Your task to perform on an android device: toggle priority inbox in the gmail app Image 0: 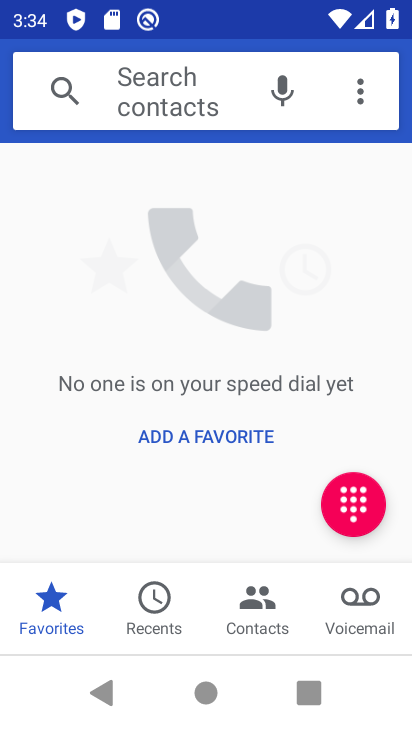
Step 0: press home button
Your task to perform on an android device: toggle priority inbox in the gmail app Image 1: 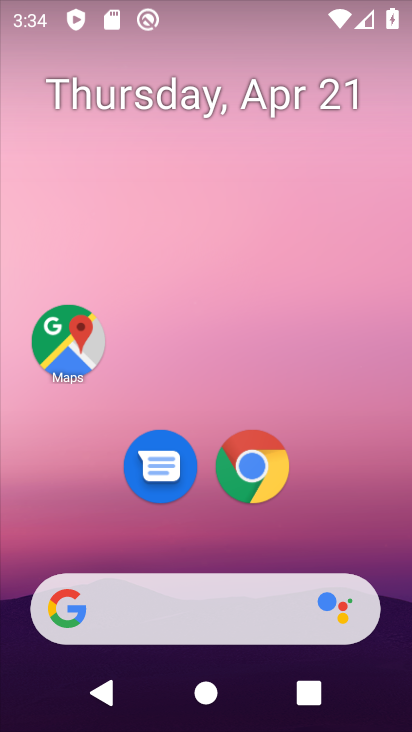
Step 1: drag from (202, 562) to (204, 207)
Your task to perform on an android device: toggle priority inbox in the gmail app Image 2: 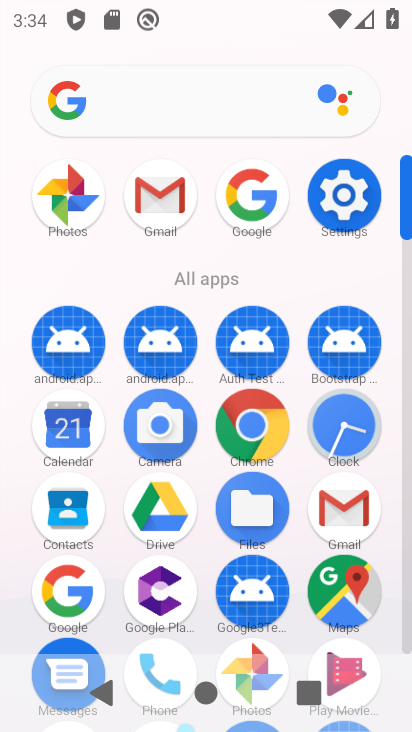
Step 2: click (326, 510)
Your task to perform on an android device: toggle priority inbox in the gmail app Image 3: 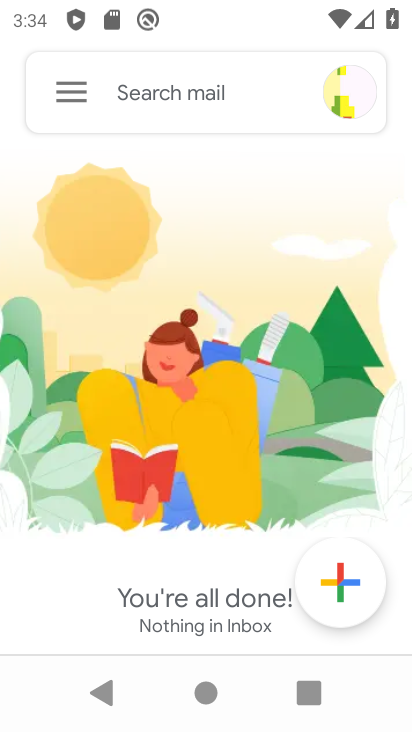
Step 3: click (72, 91)
Your task to perform on an android device: toggle priority inbox in the gmail app Image 4: 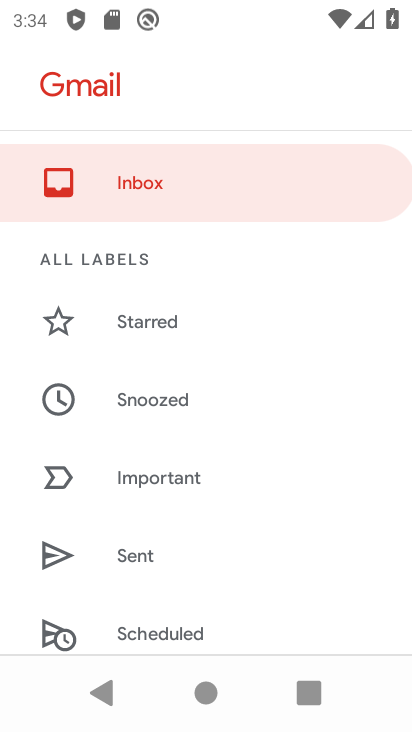
Step 4: drag from (206, 578) to (241, 276)
Your task to perform on an android device: toggle priority inbox in the gmail app Image 5: 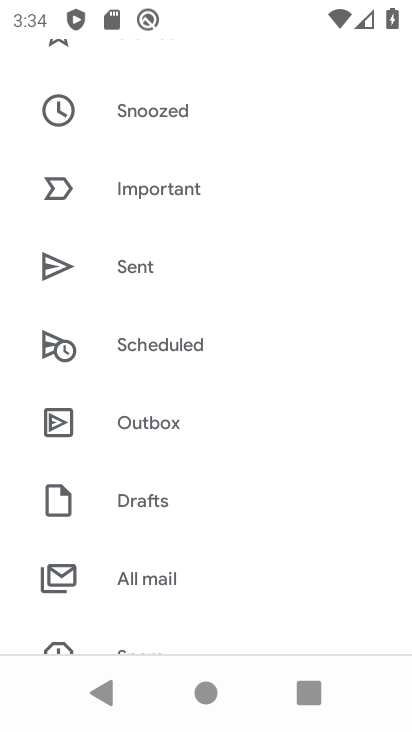
Step 5: drag from (168, 564) to (203, 367)
Your task to perform on an android device: toggle priority inbox in the gmail app Image 6: 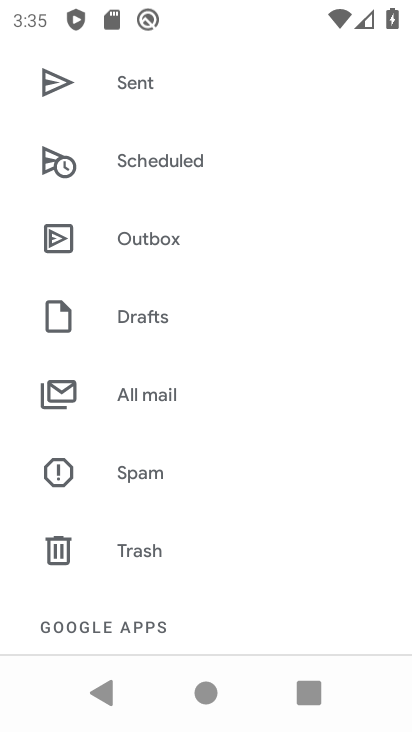
Step 6: drag from (189, 566) to (230, 332)
Your task to perform on an android device: toggle priority inbox in the gmail app Image 7: 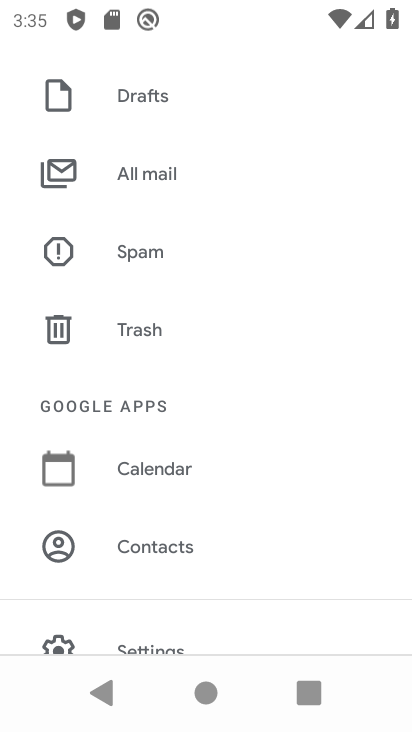
Step 7: click (181, 627)
Your task to perform on an android device: toggle priority inbox in the gmail app Image 8: 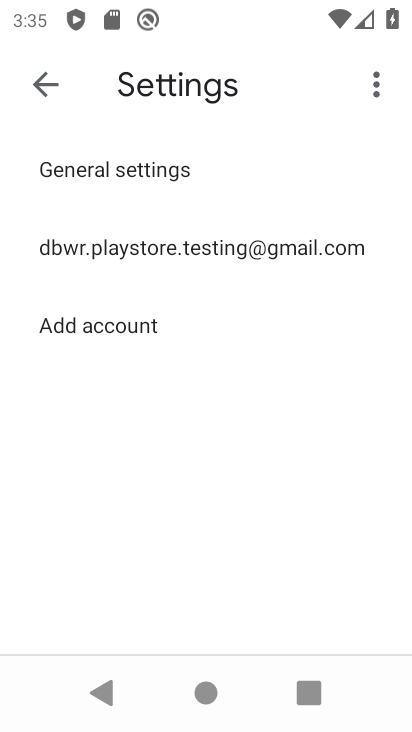
Step 8: click (211, 235)
Your task to perform on an android device: toggle priority inbox in the gmail app Image 9: 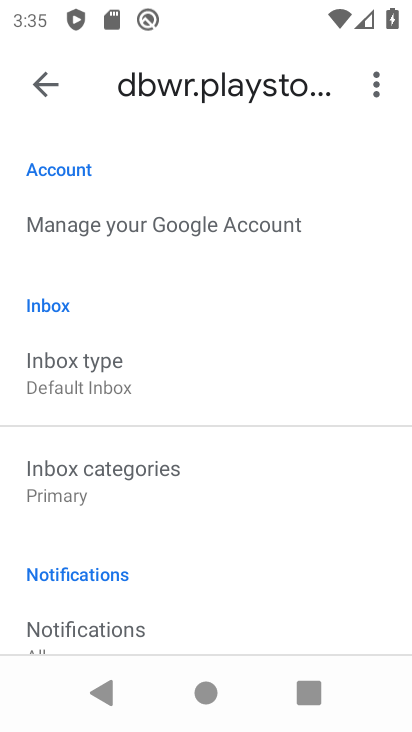
Step 9: drag from (192, 568) to (213, 316)
Your task to perform on an android device: toggle priority inbox in the gmail app Image 10: 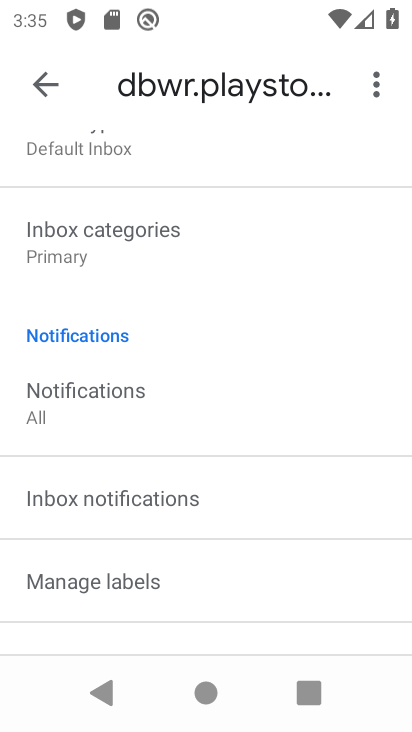
Step 10: click (141, 163)
Your task to perform on an android device: toggle priority inbox in the gmail app Image 11: 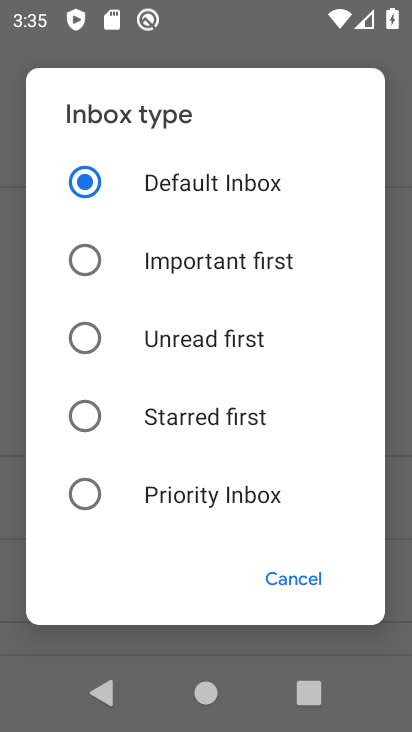
Step 11: click (167, 494)
Your task to perform on an android device: toggle priority inbox in the gmail app Image 12: 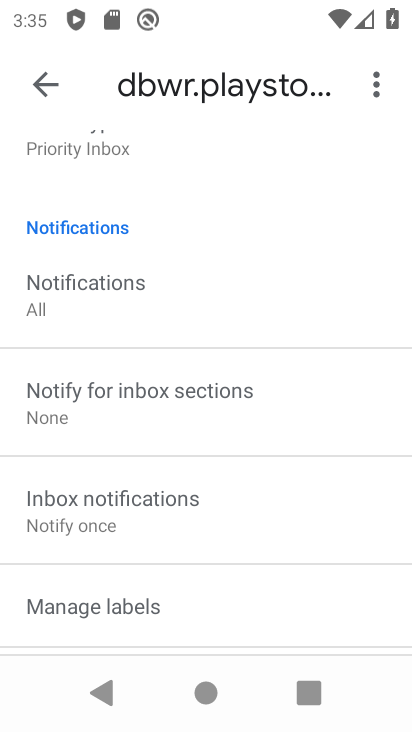
Step 12: task complete